Your task to perform on an android device: open app "Nova Launcher" (install if not already installed) Image 0: 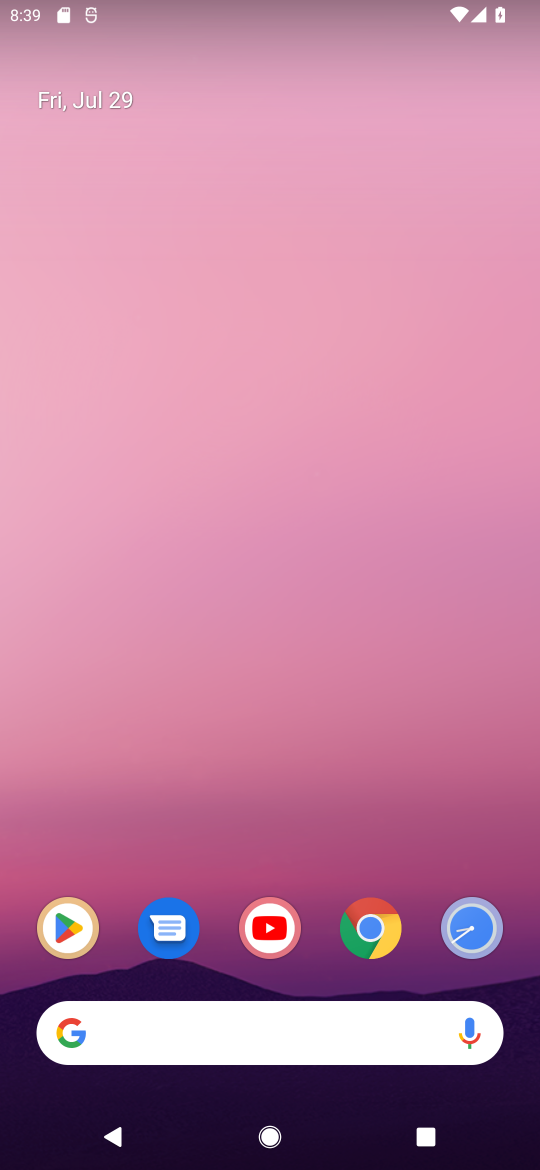
Step 0: drag from (237, 1046) to (260, 408)
Your task to perform on an android device: open app "Nova Launcher" (install if not already installed) Image 1: 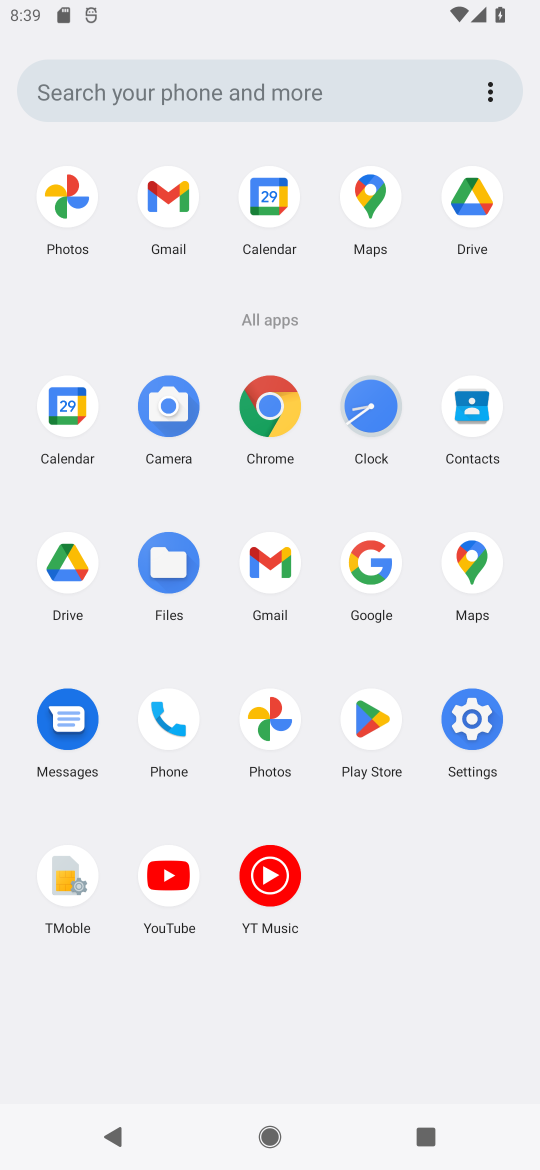
Step 1: click (367, 729)
Your task to perform on an android device: open app "Nova Launcher" (install if not already installed) Image 2: 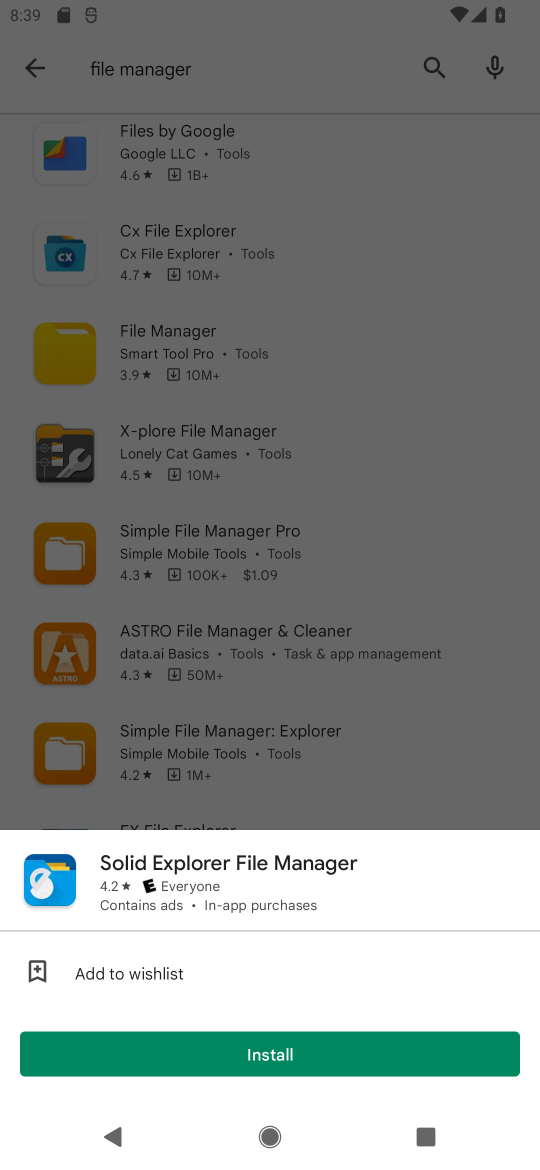
Step 2: click (422, 62)
Your task to perform on an android device: open app "Nova Launcher" (install if not already installed) Image 3: 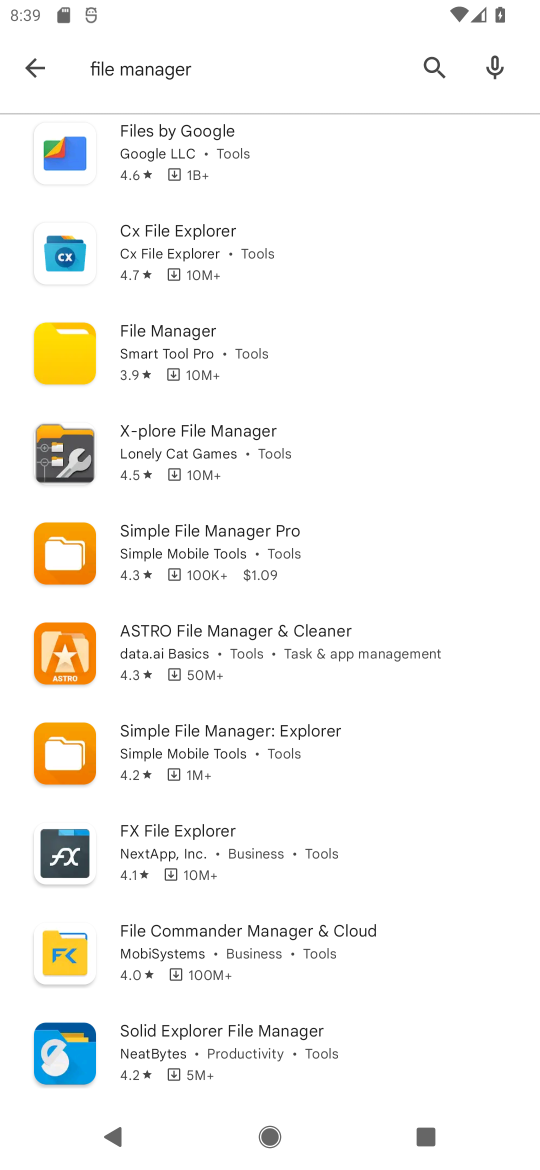
Step 3: click (422, 62)
Your task to perform on an android device: open app "Nova Launcher" (install if not already installed) Image 4: 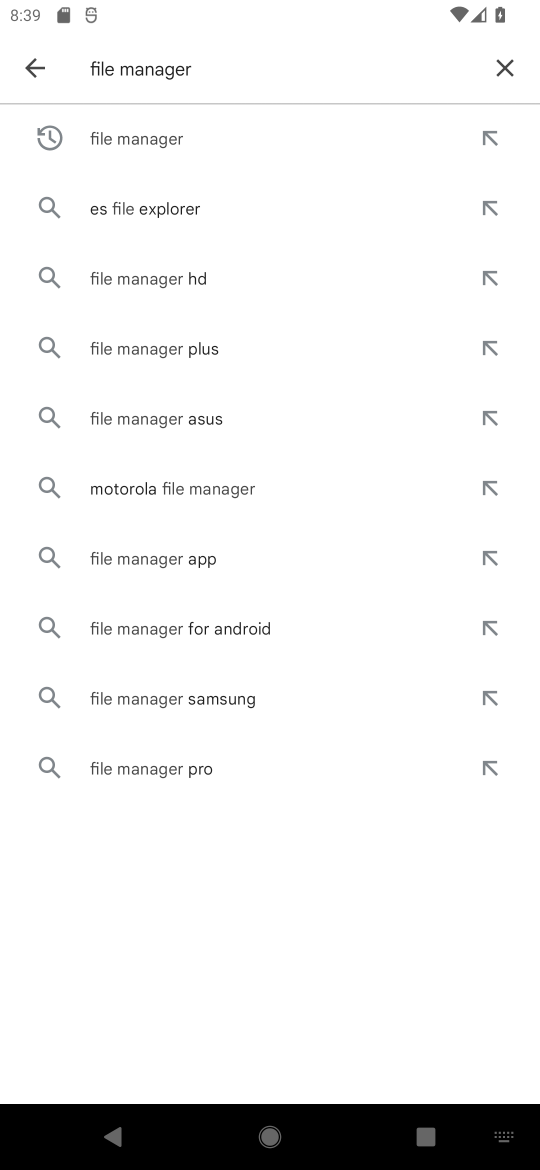
Step 4: click (503, 69)
Your task to perform on an android device: open app "Nova Launcher" (install if not already installed) Image 5: 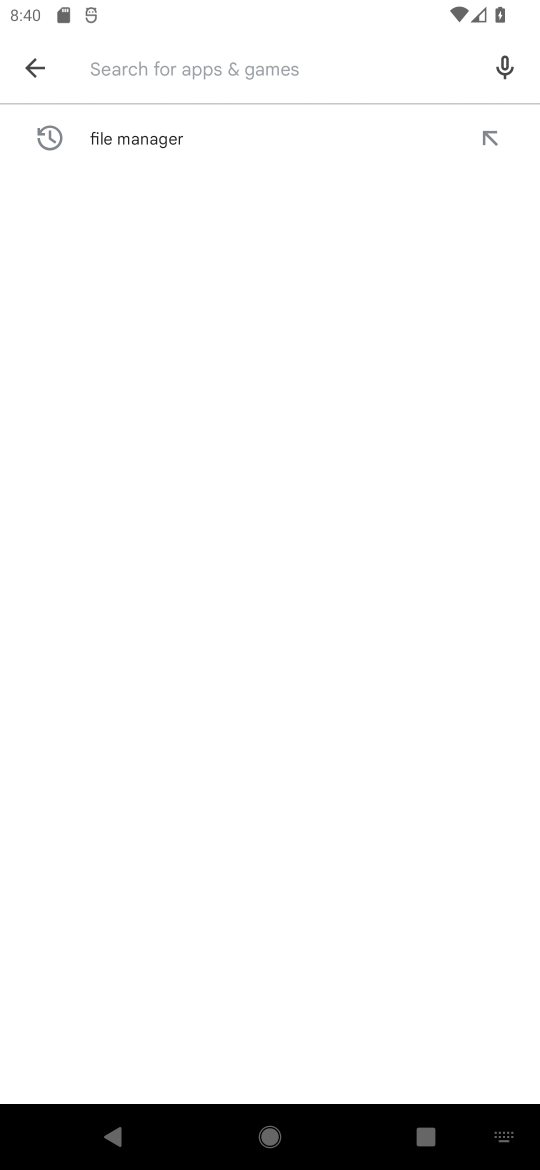
Step 5: click (168, 81)
Your task to perform on an android device: open app "Nova Launcher" (install if not already installed) Image 6: 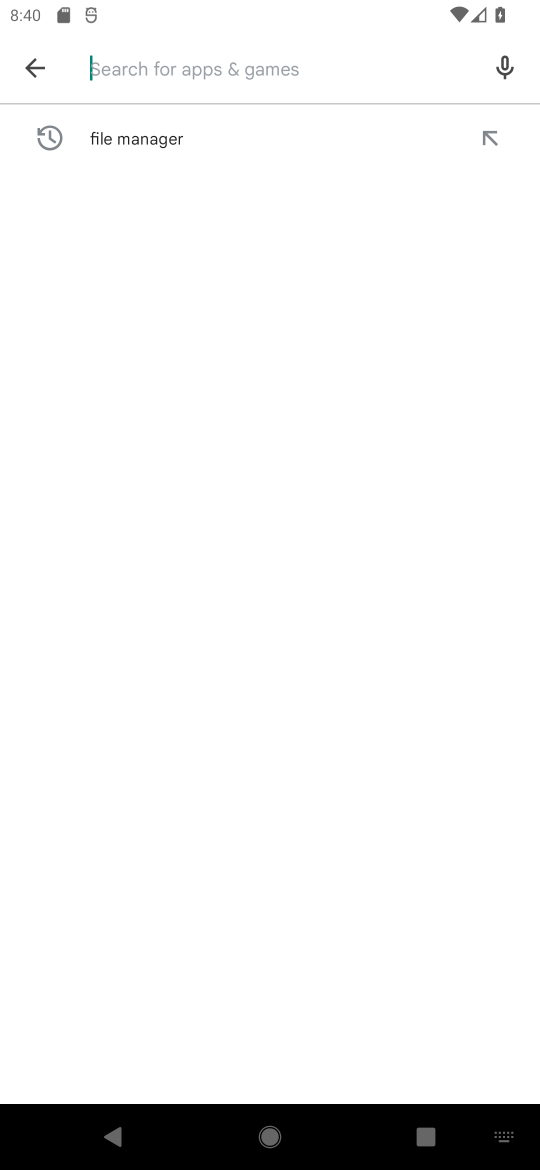
Step 6: type "Nova Launcher"
Your task to perform on an android device: open app "Nova Launcher" (install if not already installed) Image 7: 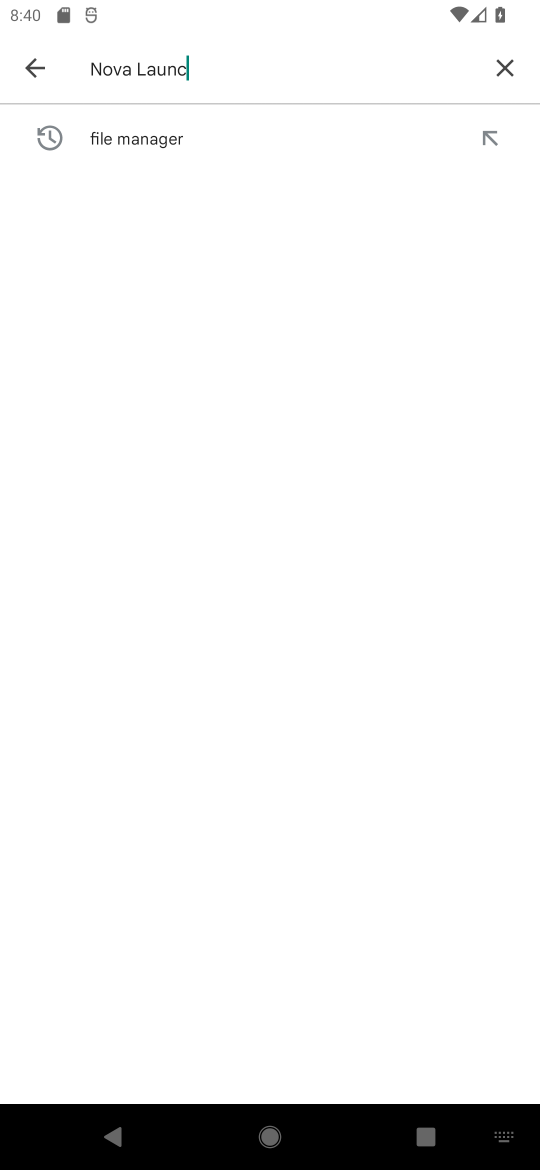
Step 7: type ""
Your task to perform on an android device: open app "Nova Launcher" (install if not already installed) Image 8: 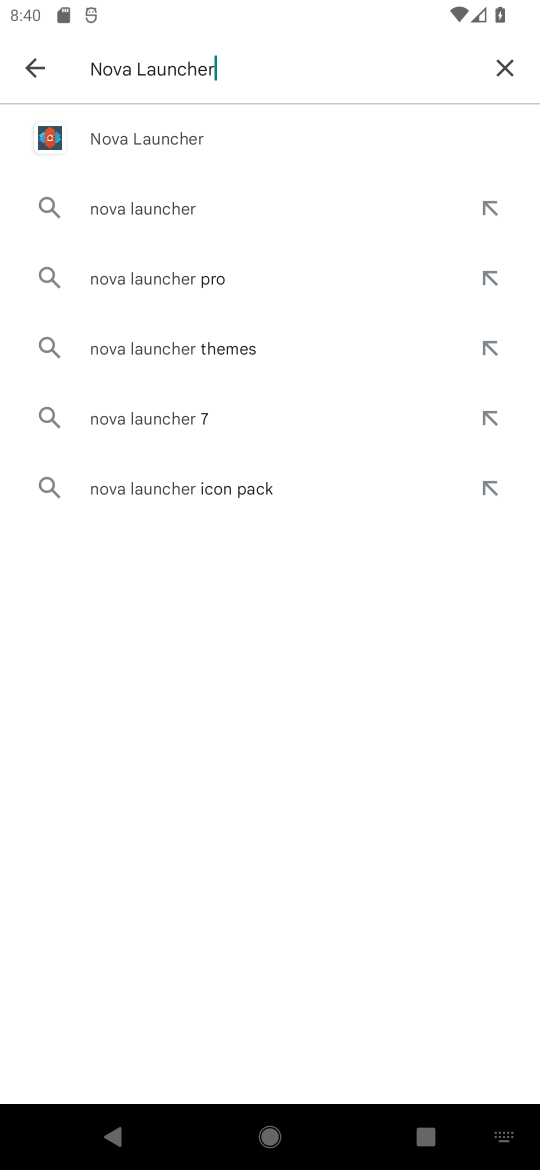
Step 8: click (175, 145)
Your task to perform on an android device: open app "Nova Launcher" (install if not already installed) Image 9: 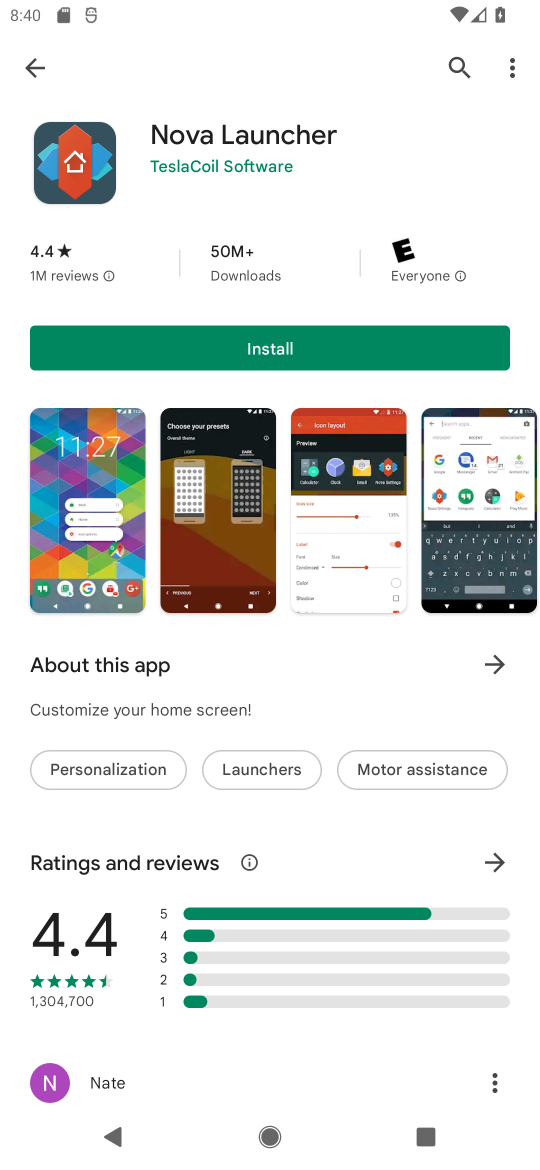
Step 9: click (301, 352)
Your task to perform on an android device: open app "Nova Launcher" (install if not already installed) Image 10: 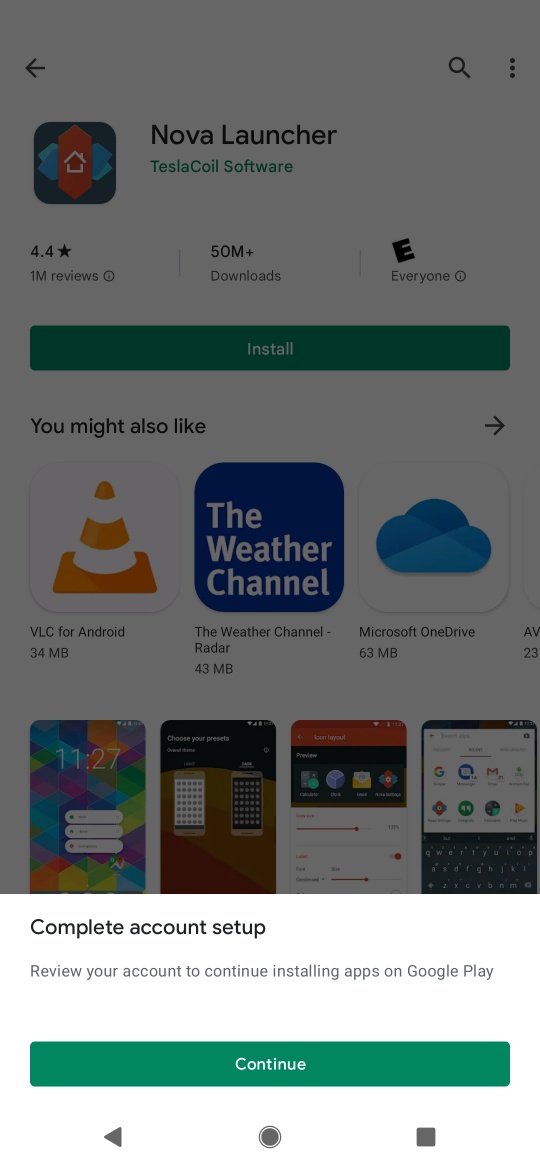
Step 10: click (306, 1082)
Your task to perform on an android device: open app "Nova Launcher" (install if not already installed) Image 11: 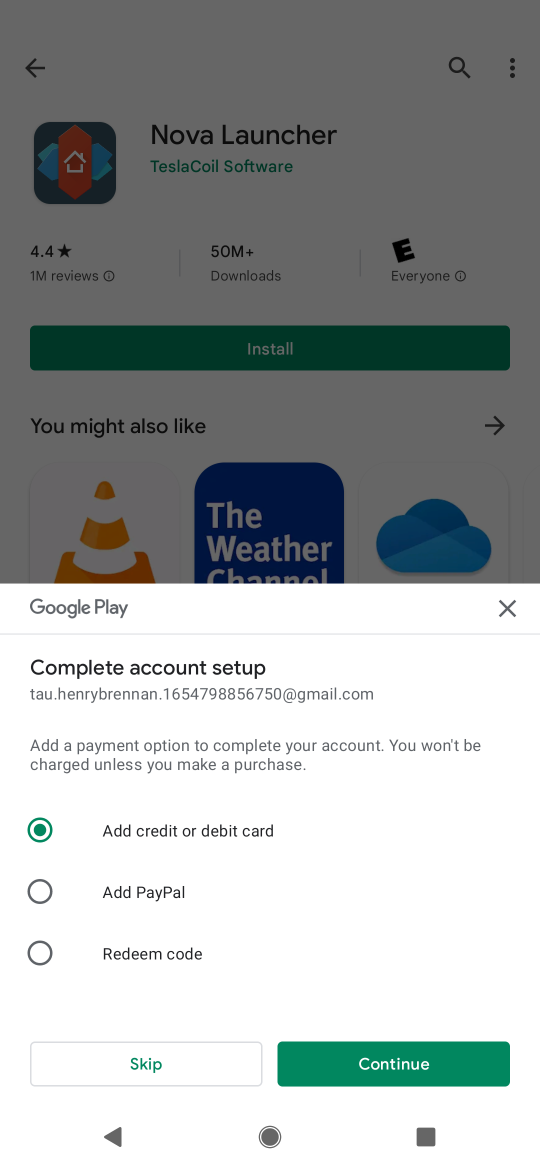
Step 11: click (104, 1059)
Your task to perform on an android device: open app "Nova Launcher" (install if not already installed) Image 12: 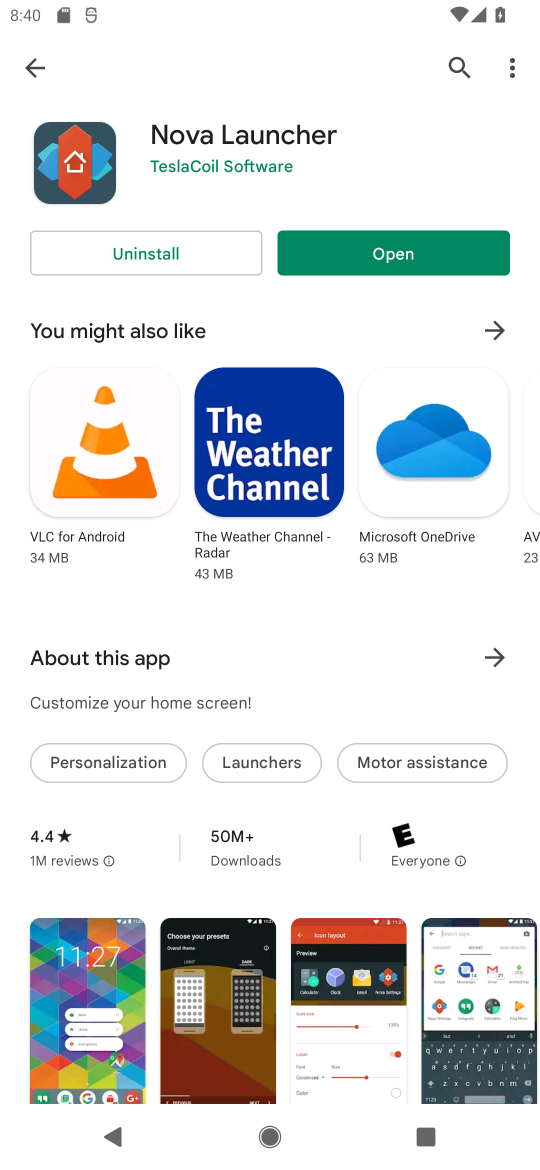
Step 12: click (352, 252)
Your task to perform on an android device: open app "Nova Launcher" (install if not already installed) Image 13: 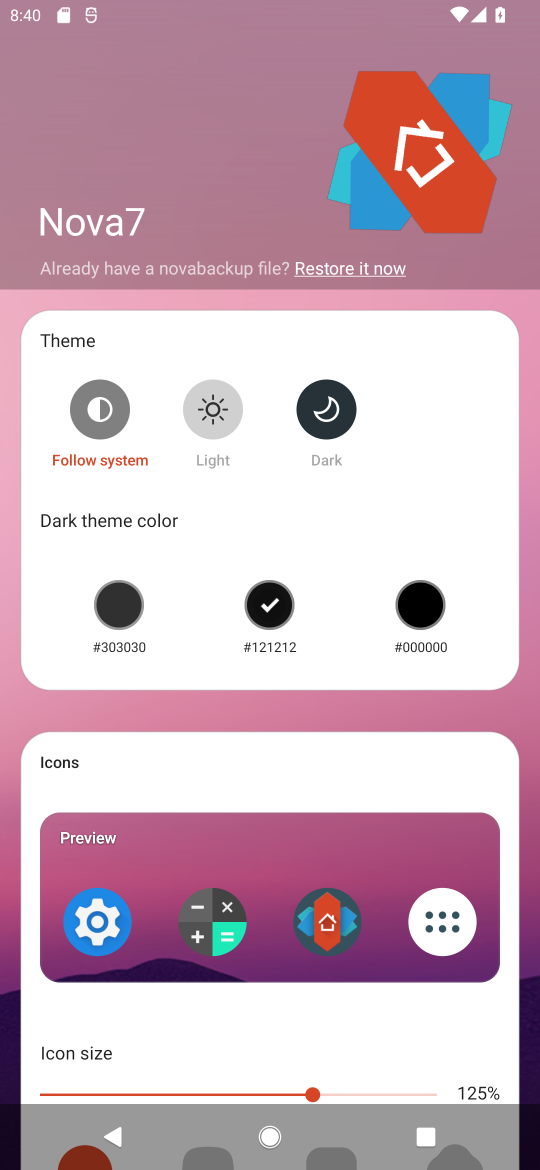
Step 13: task complete